Your task to perform on an android device: set the timer Image 0: 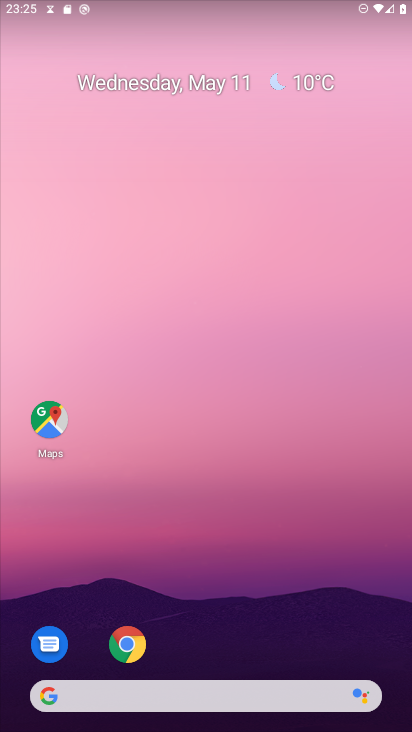
Step 0: drag from (372, 461) to (402, 26)
Your task to perform on an android device: set the timer Image 1: 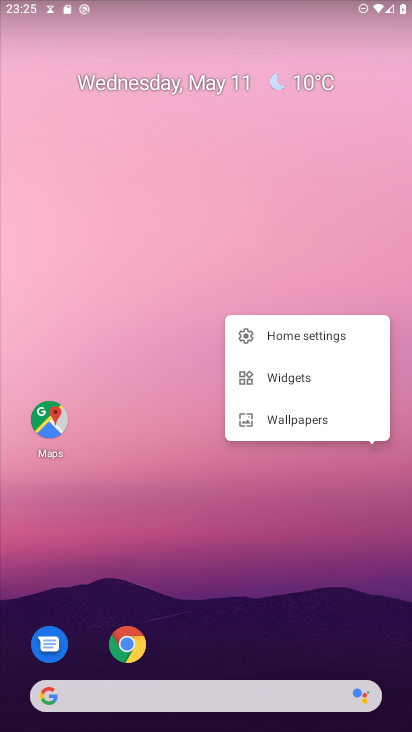
Step 1: click (391, 289)
Your task to perform on an android device: set the timer Image 2: 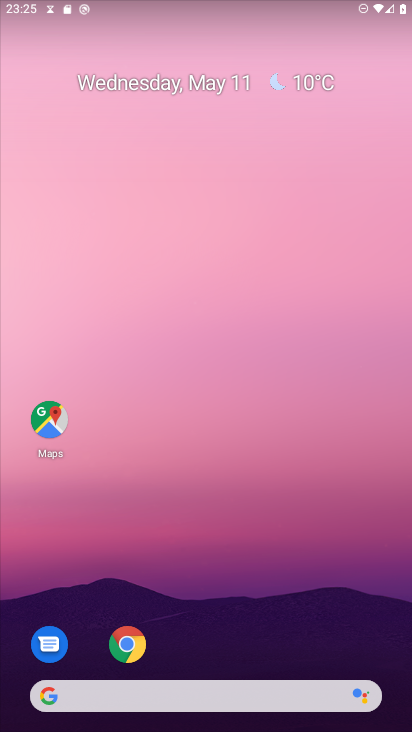
Step 2: drag from (330, 511) to (367, 13)
Your task to perform on an android device: set the timer Image 3: 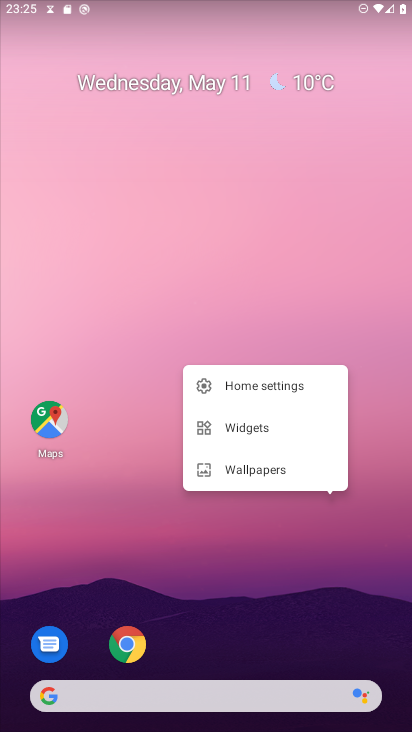
Step 3: click (364, 219)
Your task to perform on an android device: set the timer Image 4: 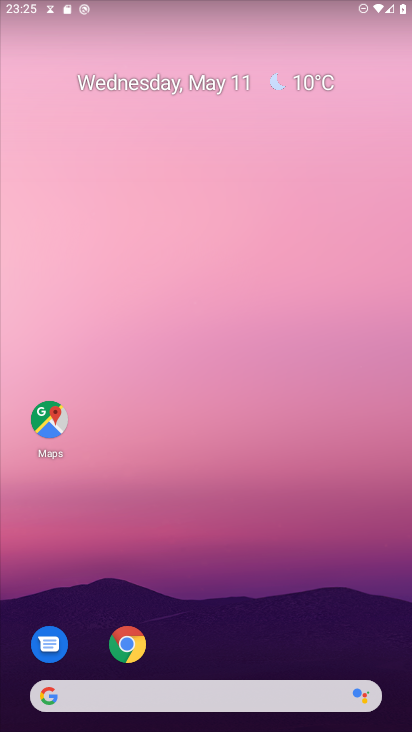
Step 4: drag from (364, 219) to (365, 16)
Your task to perform on an android device: set the timer Image 5: 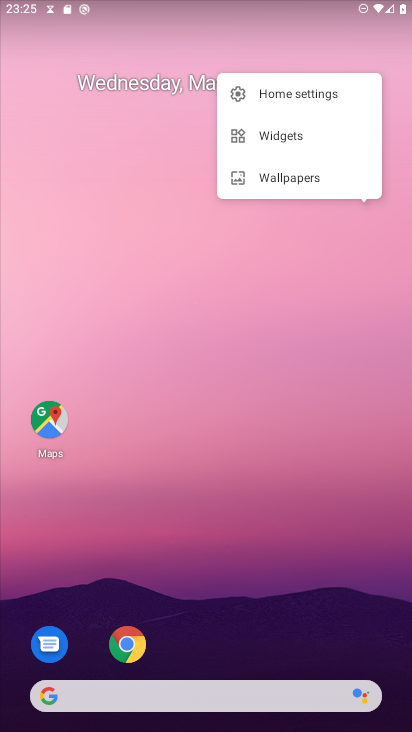
Step 5: click (353, 560)
Your task to perform on an android device: set the timer Image 6: 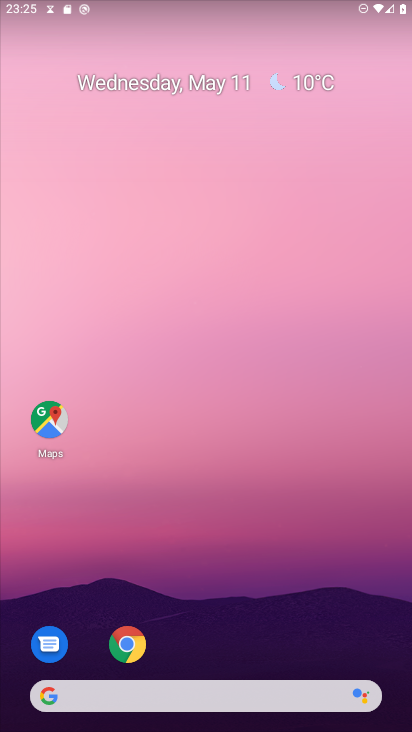
Step 6: drag from (353, 560) to (298, 0)
Your task to perform on an android device: set the timer Image 7: 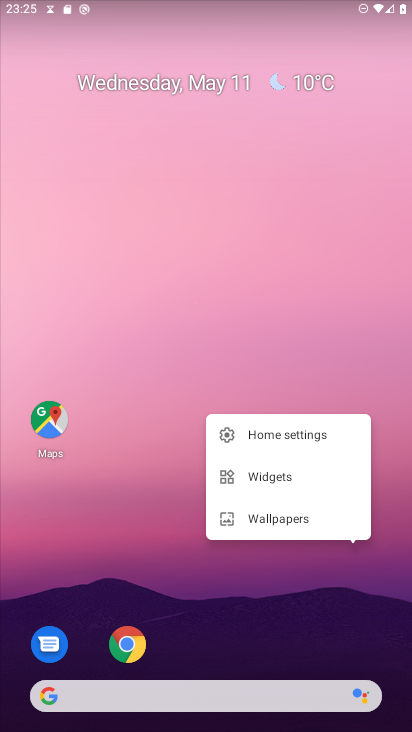
Step 7: click (359, 356)
Your task to perform on an android device: set the timer Image 8: 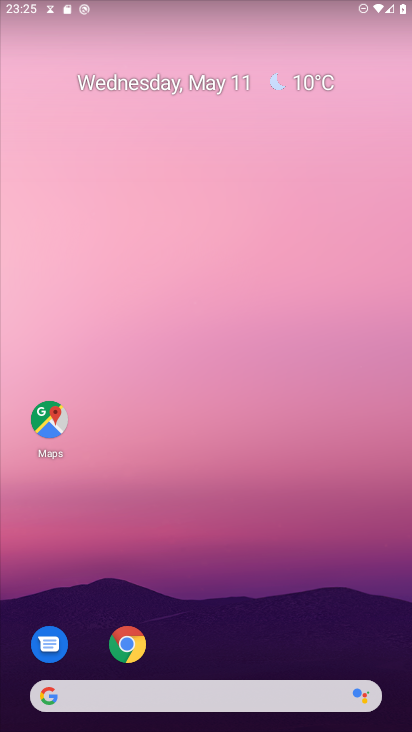
Step 8: drag from (356, 506) to (359, 36)
Your task to perform on an android device: set the timer Image 9: 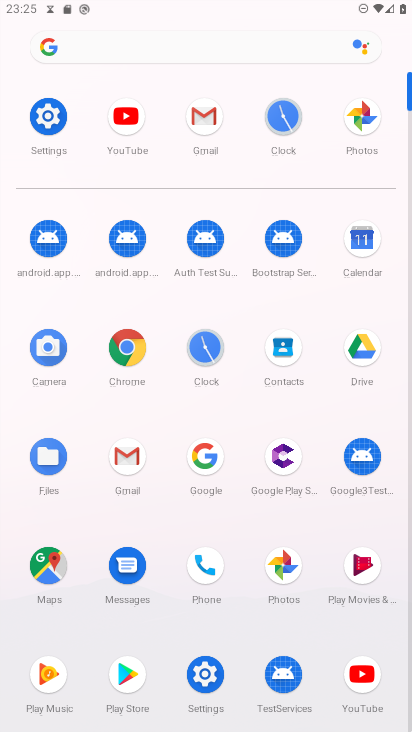
Step 9: click (270, 102)
Your task to perform on an android device: set the timer Image 10: 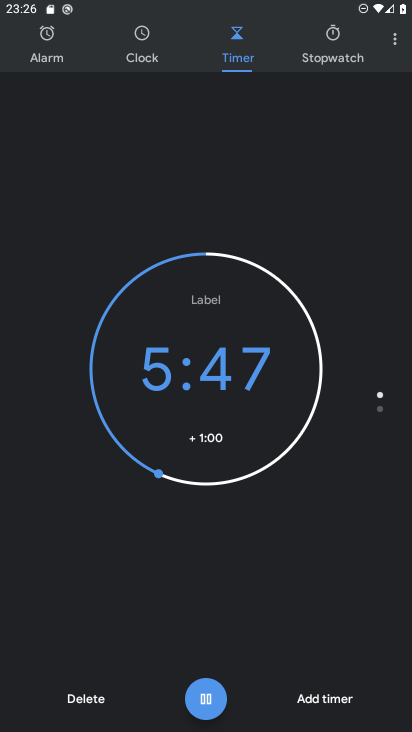
Step 10: click (306, 699)
Your task to perform on an android device: set the timer Image 11: 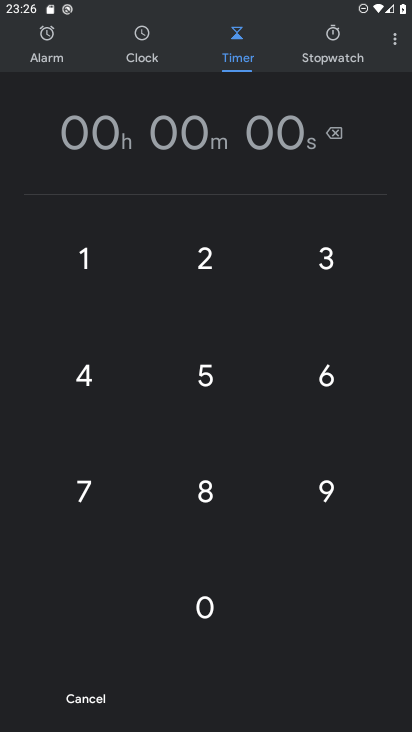
Step 11: click (205, 386)
Your task to perform on an android device: set the timer Image 12: 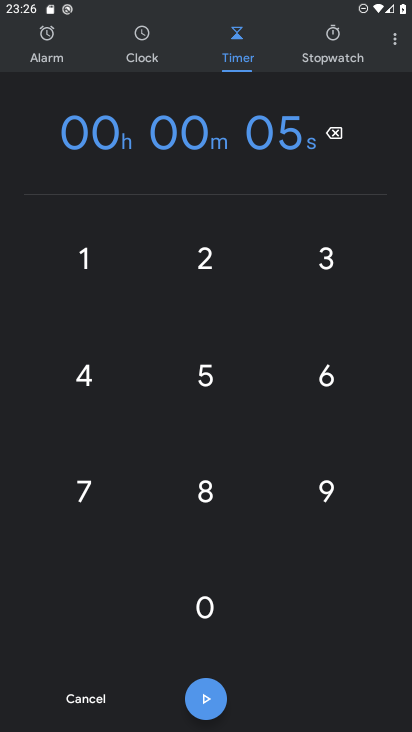
Step 12: click (207, 606)
Your task to perform on an android device: set the timer Image 13: 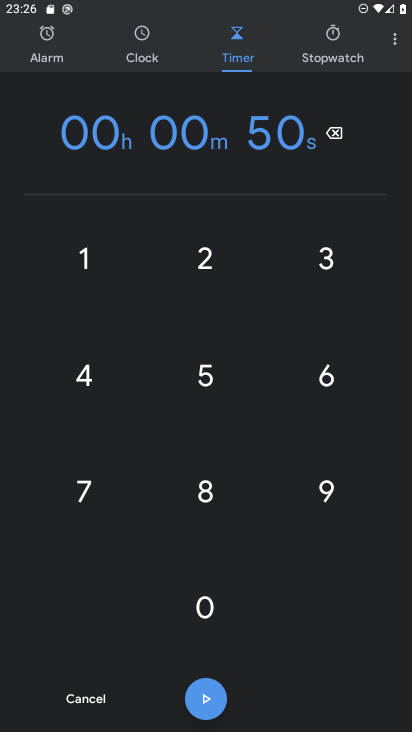
Step 13: click (212, 701)
Your task to perform on an android device: set the timer Image 14: 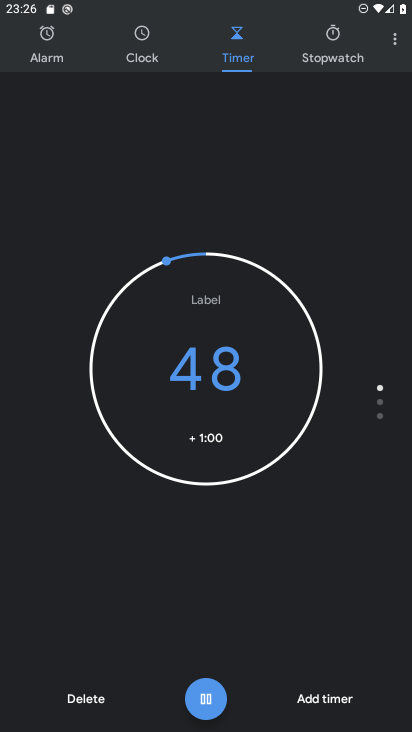
Step 14: task complete